Your task to perform on an android device: change alarm snooze length Image 0: 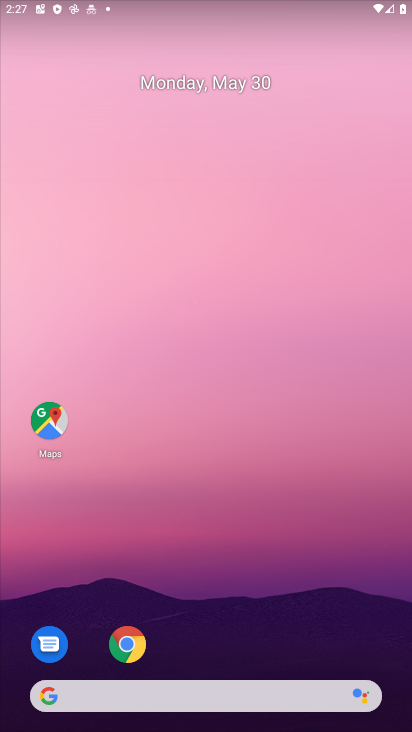
Step 0: drag from (235, 650) to (173, 12)
Your task to perform on an android device: change alarm snooze length Image 1: 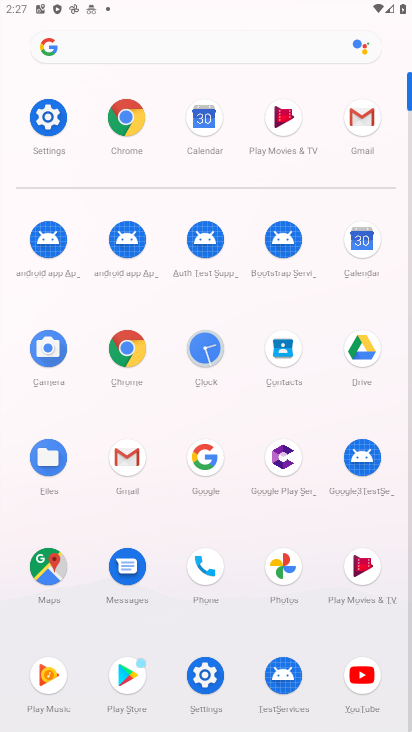
Step 1: click (204, 329)
Your task to perform on an android device: change alarm snooze length Image 2: 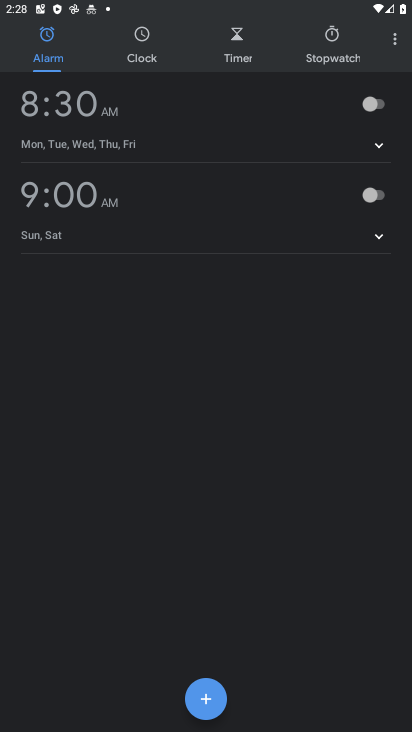
Step 2: task complete